Your task to perform on an android device: Open sound settings Image 0: 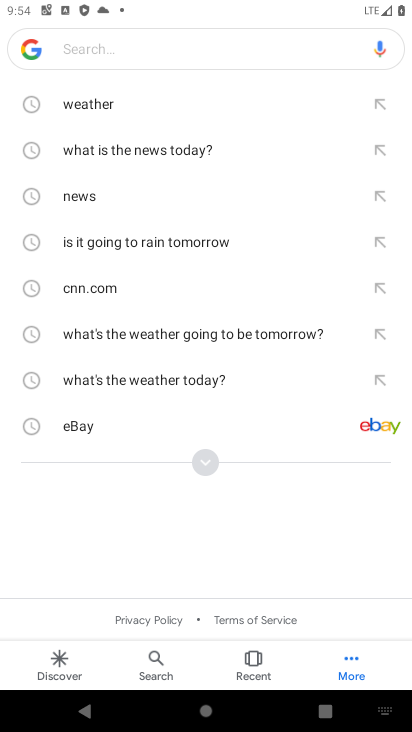
Step 0: press home button
Your task to perform on an android device: Open sound settings Image 1: 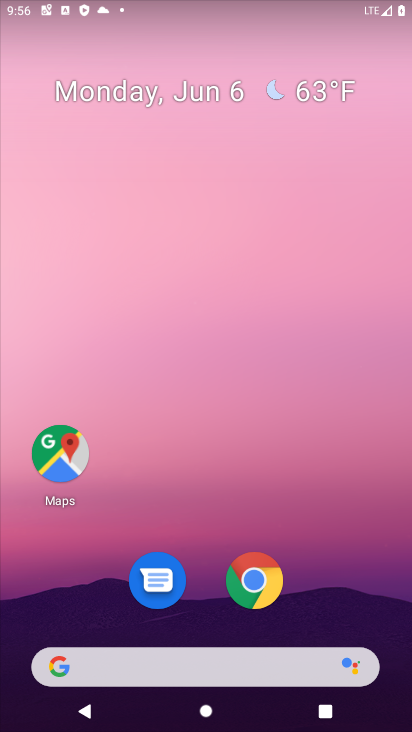
Step 1: drag from (351, 628) to (408, 402)
Your task to perform on an android device: Open sound settings Image 2: 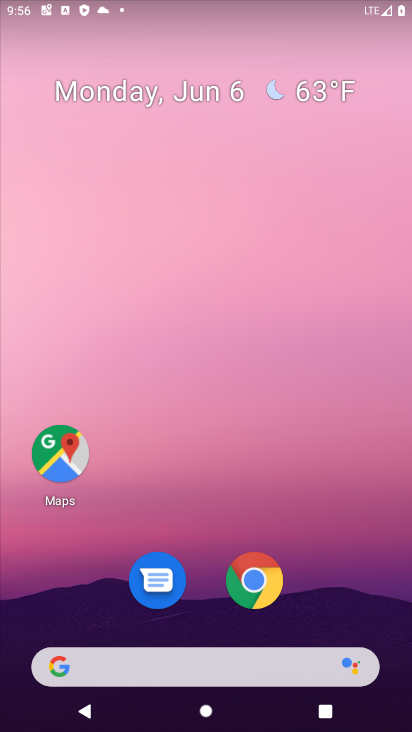
Step 2: drag from (334, 597) to (235, 9)
Your task to perform on an android device: Open sound settings Image 3: 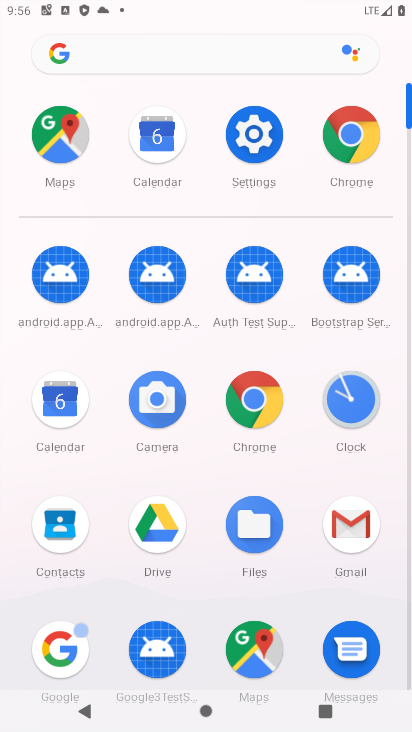
Step 3: click (257, 186)
Your task to perform on an android device: Open sound settings Image 4: 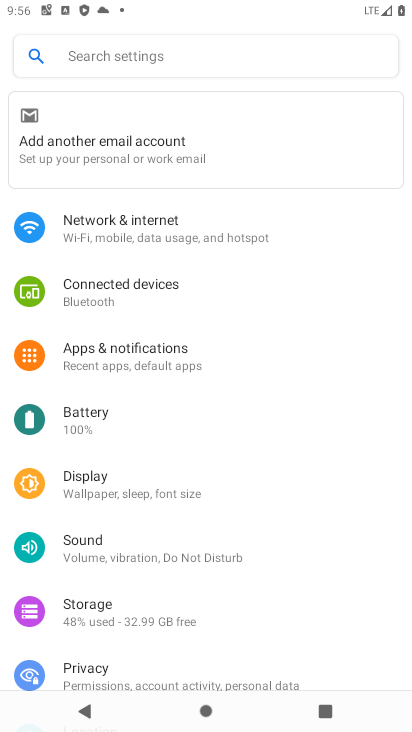
Step 4: click (136, 565)
Your task to perform on an android device: Open sound settings Image 5: 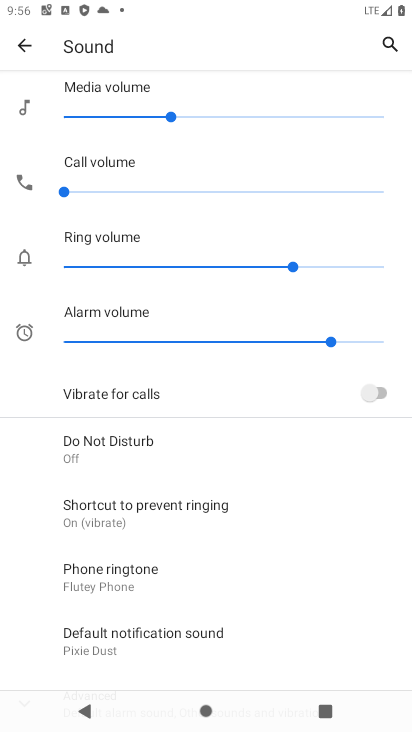
Step 5: task complete